Your task to perform on an android device: toggle notifications settings in the gmail app Image 0: 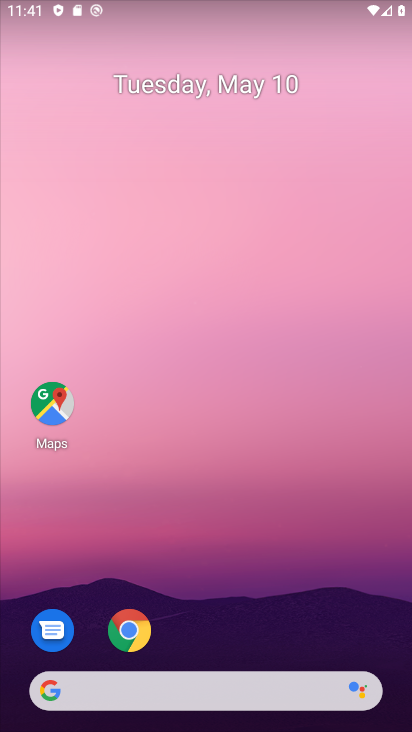
Step 0: drag from (199, 664) to (192, 54)
Your task to perform on an android device: toggle notifications settings in the gmail app Image 1: 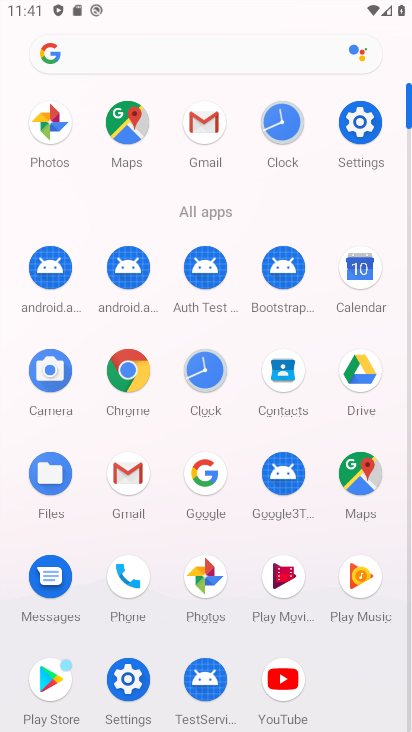
Step 1: click (127, 471)
Your task to perform on an android device: toggle notifications settings in the gmail app Image 2: 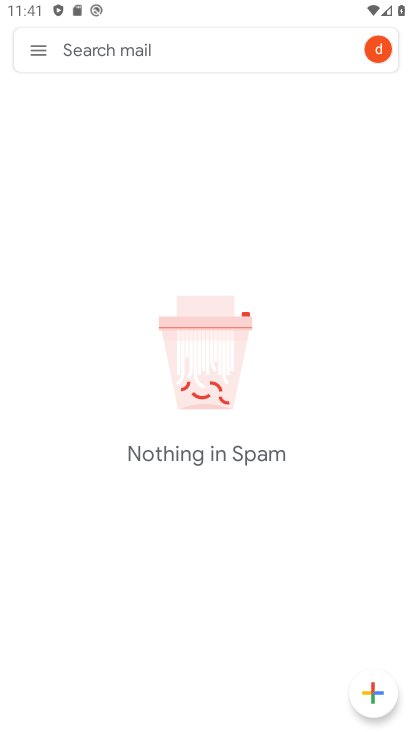
Step 2: click (43, 47)
Your task to perform on an android device: toggle notifications settings in the gmail app Image 3: 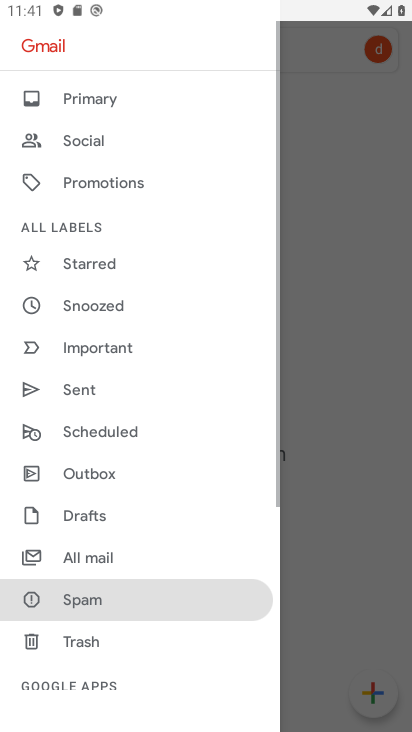
Step 3: drag from (80, 548) to (55, 99)
Your task to perform on an android device: toggle notifications settings in the gmail app Image 4: 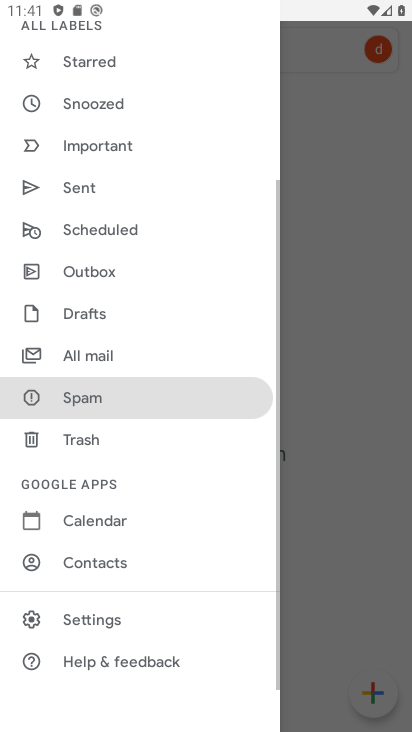
Step 4: click (68, 603)
Your task to perform on an android device: toggle notifications settings in the gmail app Image 5: 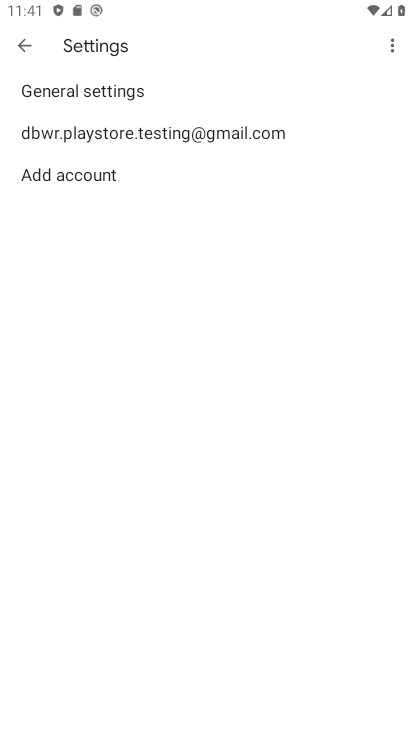
Step 5: click (80, 95)
Your task to perform on an android device: toggle notifications settings in the gmail app Image 6: 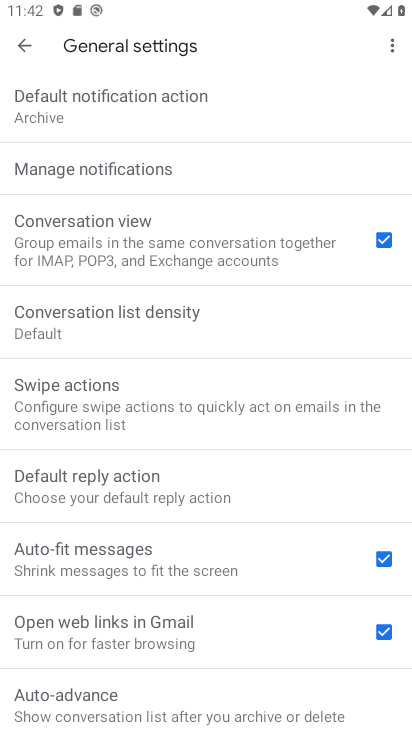
Step 6: click (72, 162)
Your task to perform on an android device: toggle notifications settings in the gmail app Image 7: 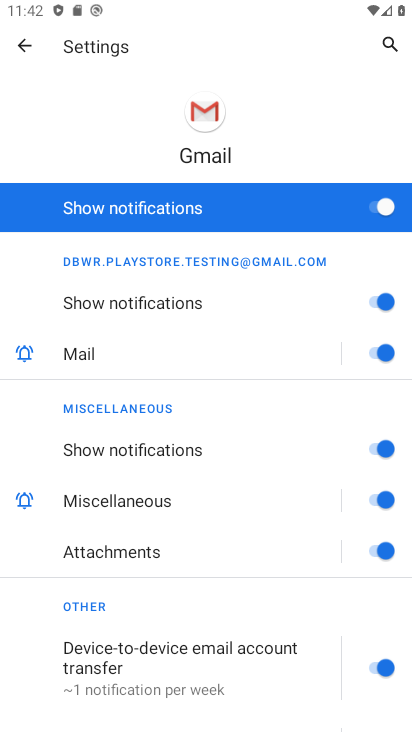
Step 7: click (366, 207)
Your task to perform on an android device: toggle notifications settings in the gmail app Image 8: 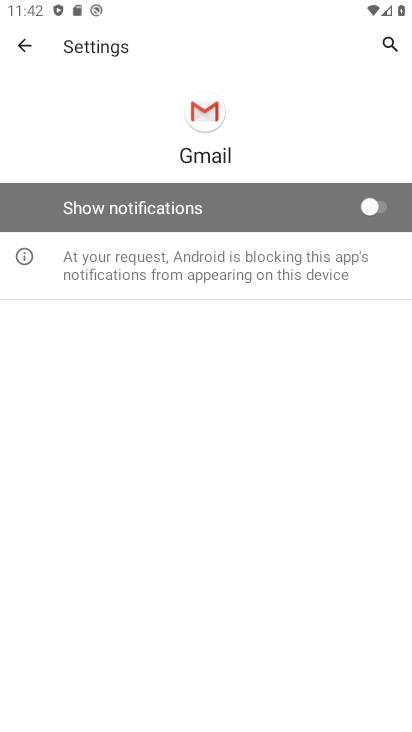
Step 8: task complete